Your task to perform on an android device: turn on javascript in the chrome app Image 0: 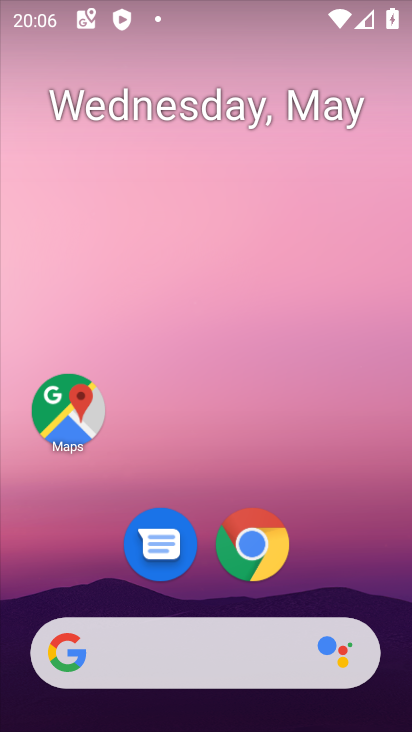
Step 0: click (254, 557)
Your task to perform on an android device: turn on javascript in the chrome app Image 1: 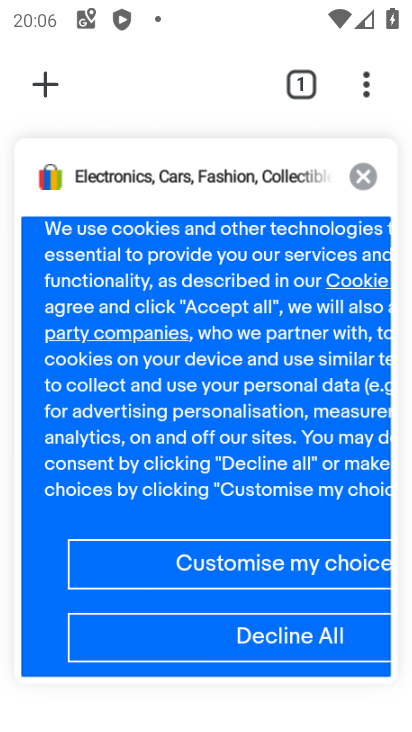
Step 1: click (378, 98)
Your task to perform on an android device: turn on javascript in the chrome app Image 2: 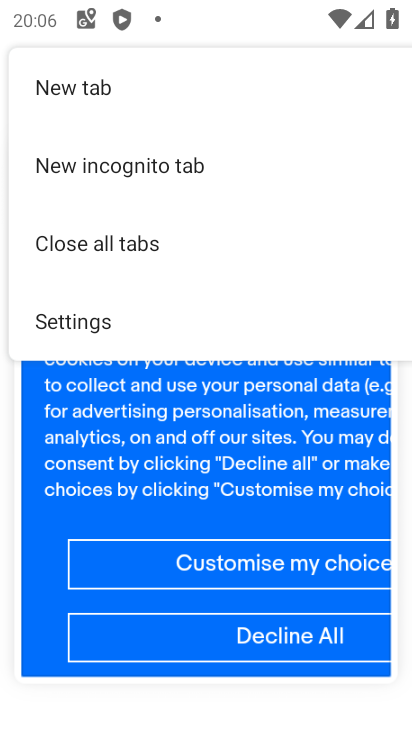
Step 2: click (101, 337)
Your task to perform on an android device: turn on javascript in the chrome app Image 3: 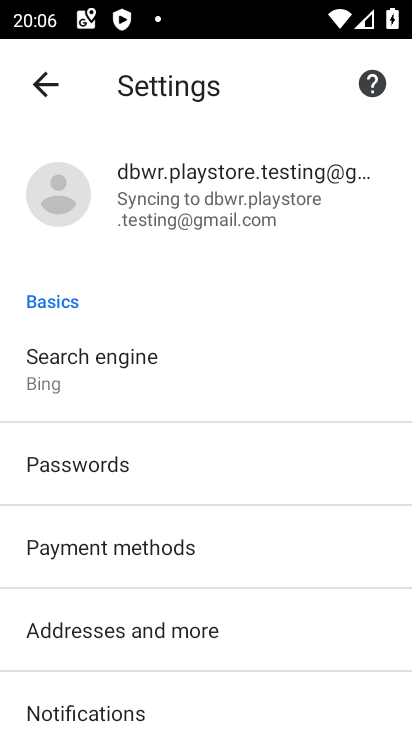
Step 3: drag from (218, 680) to (277, 116)
Your task to perform on an android device: turn on javascript in the chrome app Image 4: 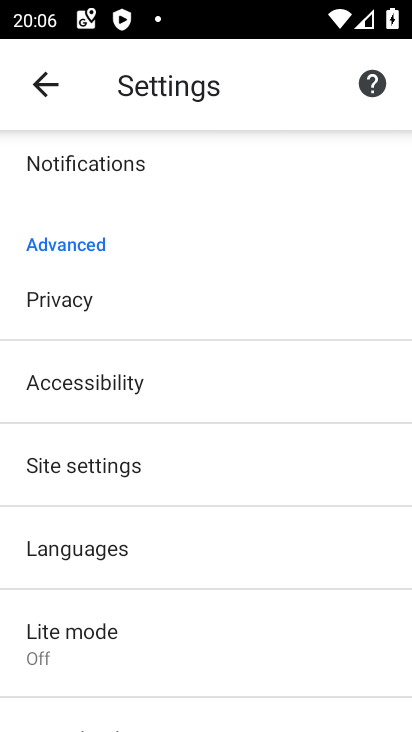
Step 4: click (205, 480)
Your task to perform on an android device: turn on javascript in the chrome app Image 5: 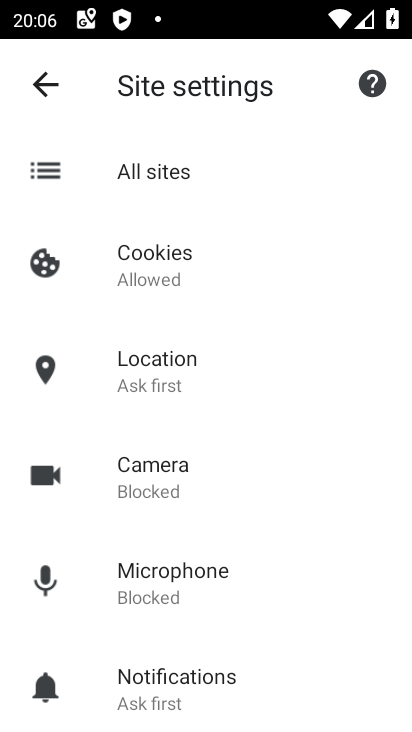
Step 5: drag from (120, 644) to (186, 240)
Your task to perform on an android device: turn on javascript in the chrome app Image 6: 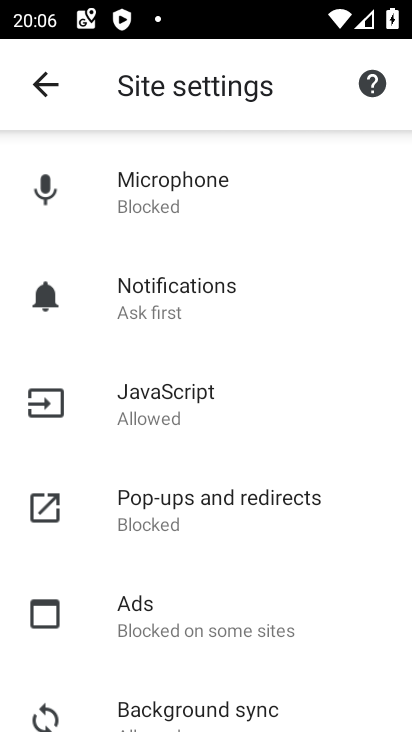
Step 6: click (174, 403)
Your task to perform on an android device: turn on javascript in the chrome app Image 7: 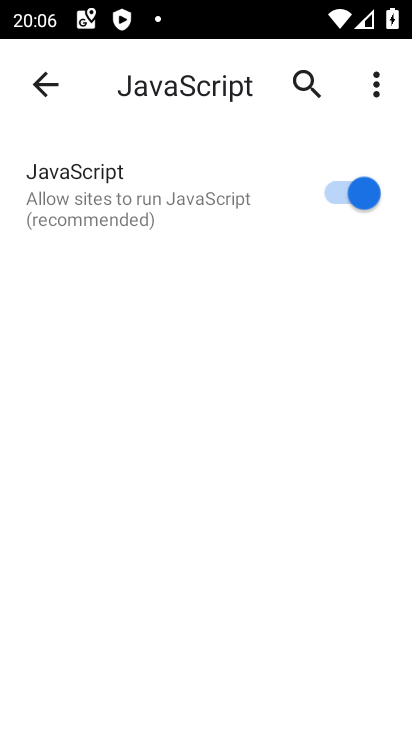
Step 7: task complete